Your task to perform on an android device: What is the recent news? Image 0: 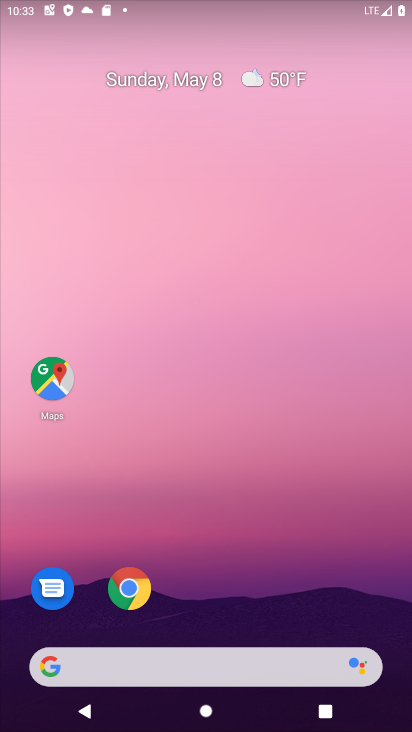
Step 0: drag from (252, 530) to (254, 68)
Your task to perform on an android device: What is the recent news? Image 1: 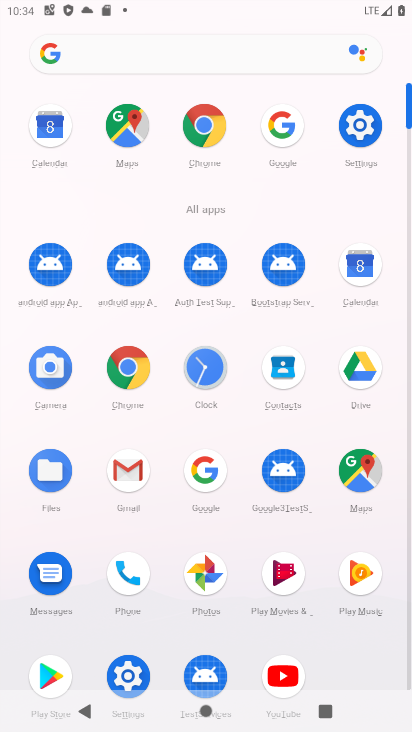
Step 1: click (202, 463)
Your task to perform on an android device: What is the recent news? Image 2: 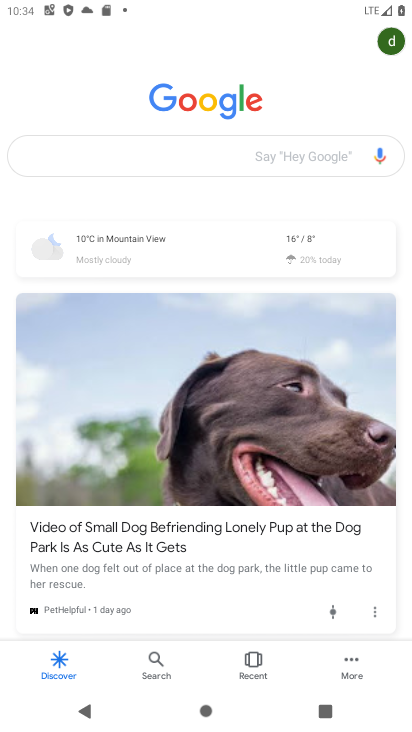
Step 2: click (156, 164)
Your task to perform on an android device: What is the recent news? Image 3: 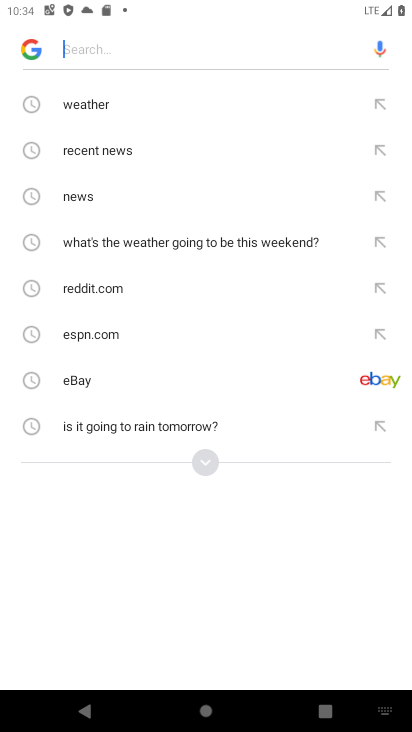
Step 3: click (153, 155)
Your task to perform on an android device: What is the recent news? Image 4: 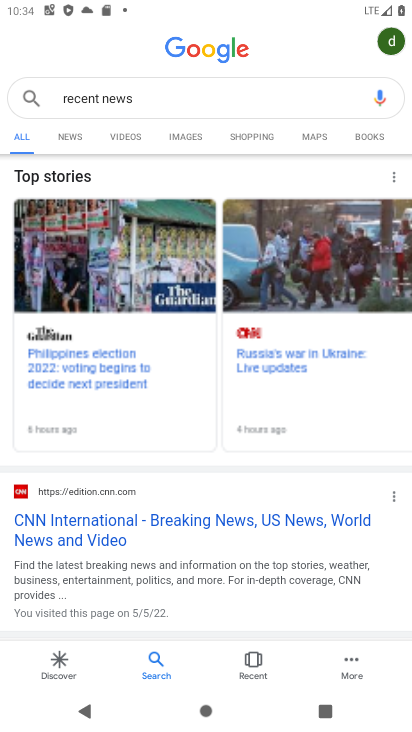
Step 4: task complete